Your task to perform on an android device: Go to Reddit.com Image 0: 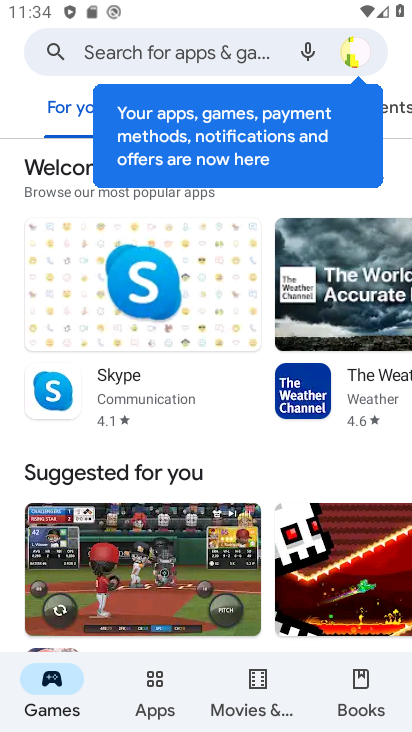
Step 0: press home button
Your task to perform on an android device: Go to Reddit.com Image 1: 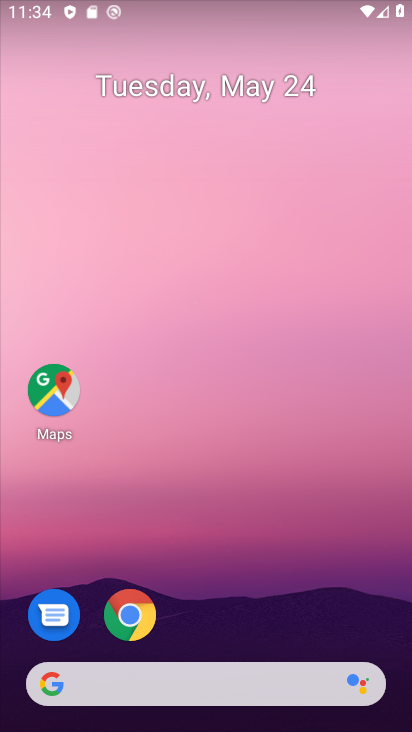
Step 1: click (129, 615)
Your task to perform on an android device: Go to Reddit.com Image 2: 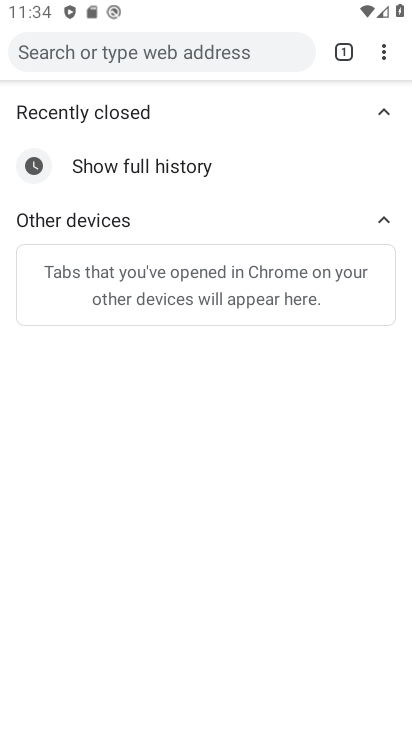
Step 2: click (213, 55)
Your task to perform on an android device: Go to Reddit.com Image 3: 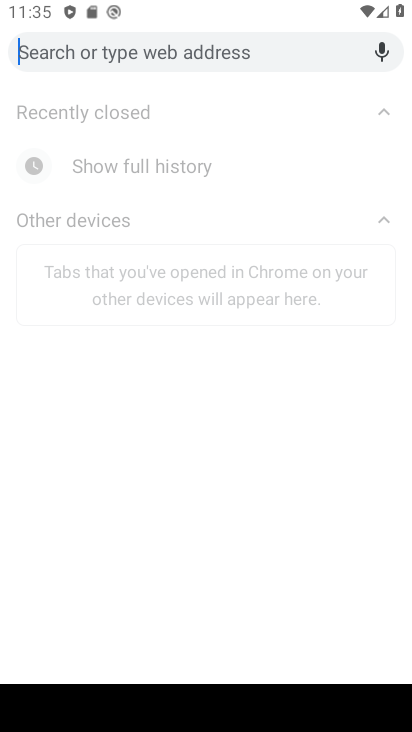
Step 3: type "Reddit.com"
Your task to perform on an android device: Go to Reddit.com Image 4: 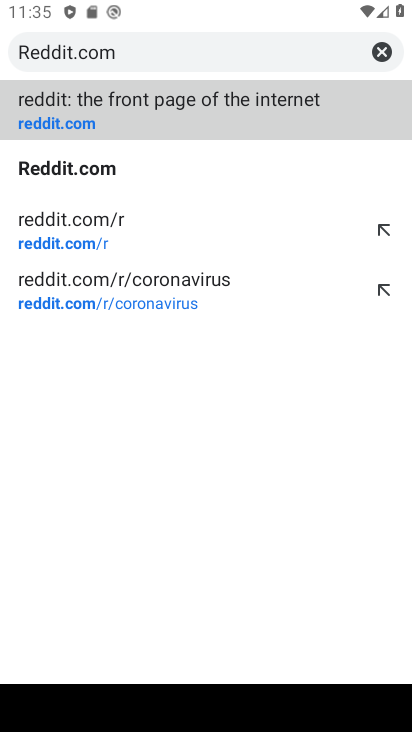
Step 4: click (101, 168)
Your task to perform on an android device: Go to Reddit.com Image 5: 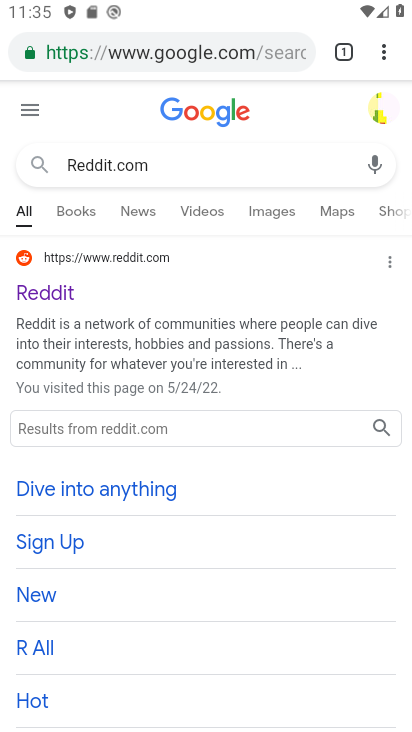
Step 5: click (54, 296)
Your task to perform on an android device: Go to Reddit.com Image 6: 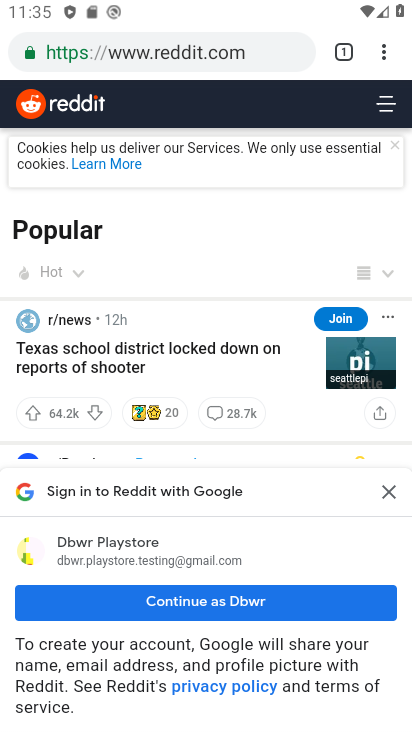
Step 6: task complete